Your task to perform on an android device: Find coffee shops on Maps Image 0: 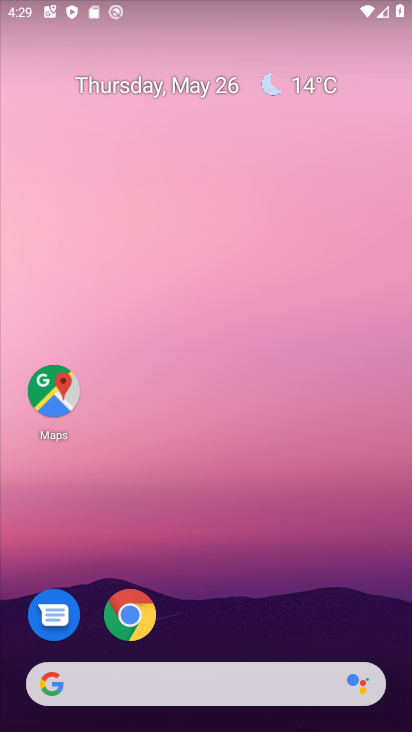
Step 0: click (65, 402)
Your task to perform on an android device: Find coffee shops on Maps Image 1: 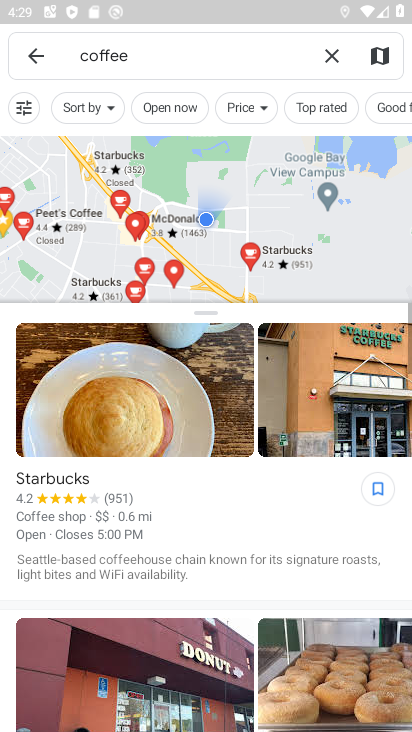
Step 1: click (261, 66)
Your task to perform on an android device: Find coffee shops on Maps Image 2: 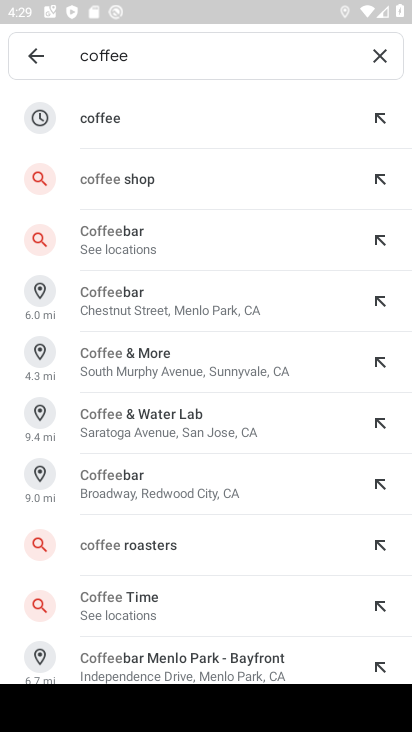
Step 2: click (382, 53)
Your task to perform on an android device: Find coffee shops on Maps Image 3: 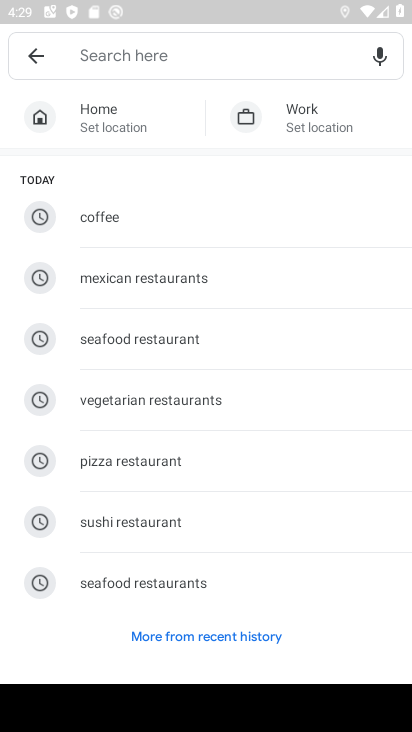
Step 3: type "coffee shops"
Your task to perform on an android device: Find coffee shops on Maps Image 4: 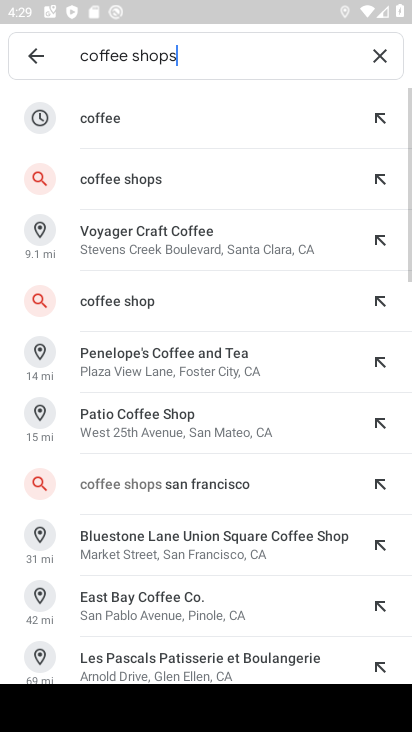
Step 4: click (185, 175)
Your task to perform on an android device: Find coffee shops on Maps Image 5: 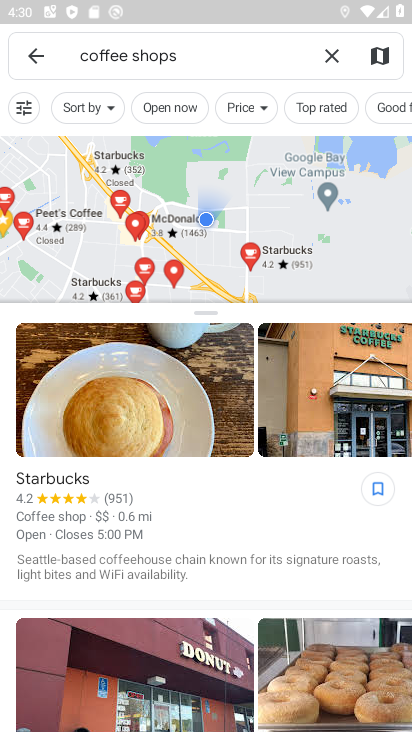
Step 5: task complete